Your task to perform on an android device: Open privacy settings Image 0: 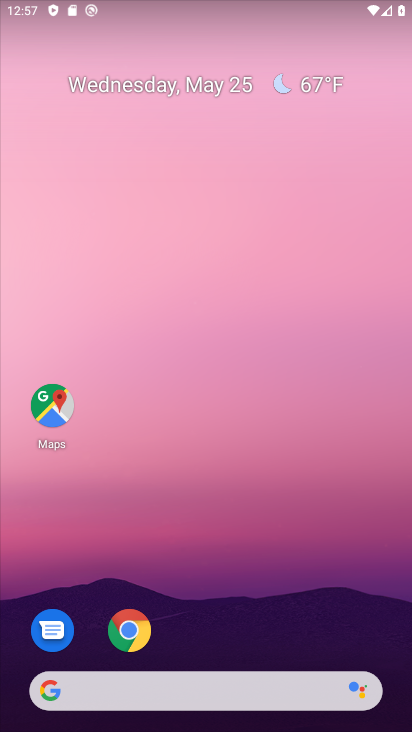
Step 0: drag from (224, 652) to (242, 118)
Your task to perform on an android device: Open privacy settings Image 1: 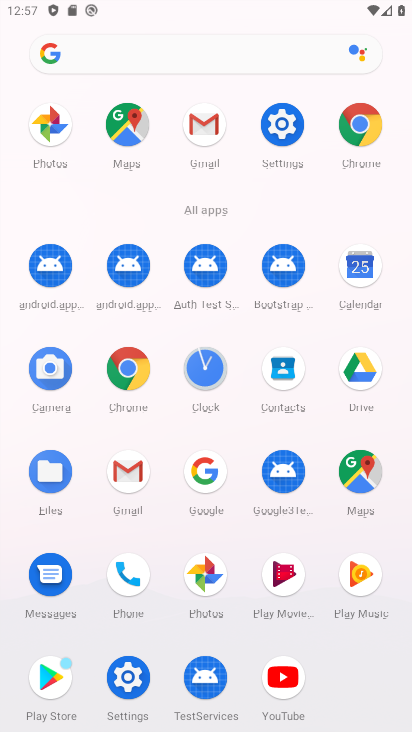
Step 1: click (283, 116)
Your task to perform on an android device: Open privacy settings Image 2: 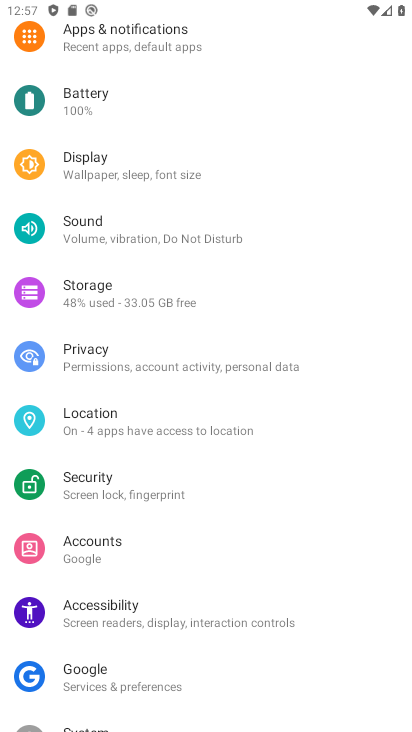
Step 2: click (115, 348)
Your task to perform on an android device: Open privacy settings Image 3: 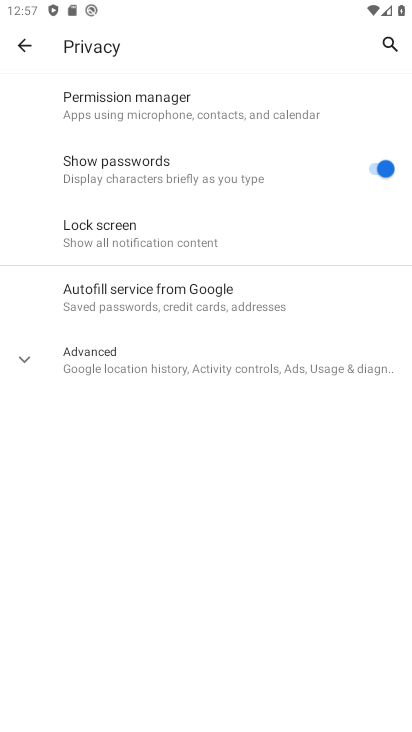
Step 3: click (29, 355)
Your task to perform on an android device: Open privacy settings Image 4: 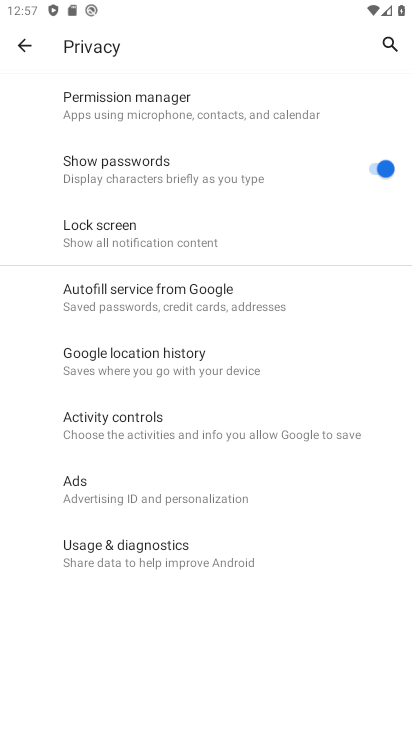
Step 4: task complete